Your task to perform on an android device: Search for Mexican restaurants on Maps Image 0: 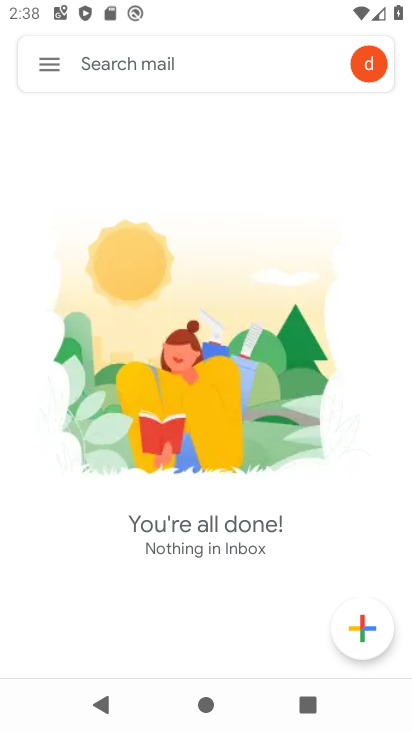
Step 0: press back button
Your task to perform on an android device: Search for Mexican restaurants on Maps Image 1: 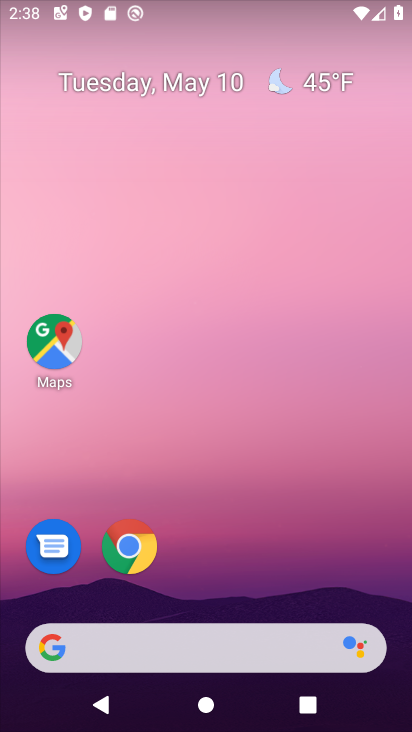
Step 1: click (51, 333)
Your task to perform on an android device: Search for Mexican restaurants on Maps Image 2: 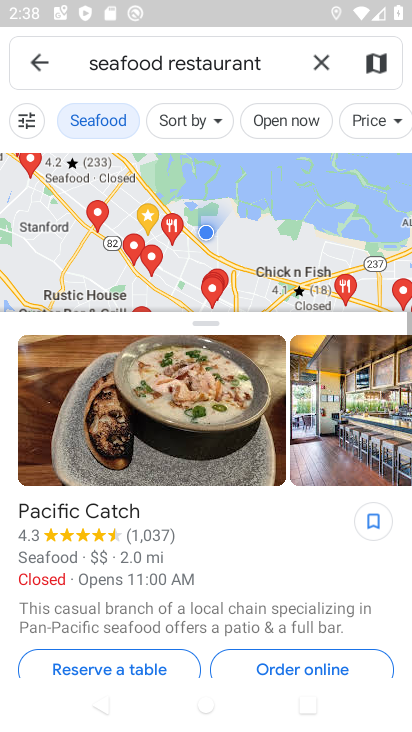
Step 2: click (329, 61)
Your task to perform on an android device: Search for Mexican restaurants on Maps Image 3: 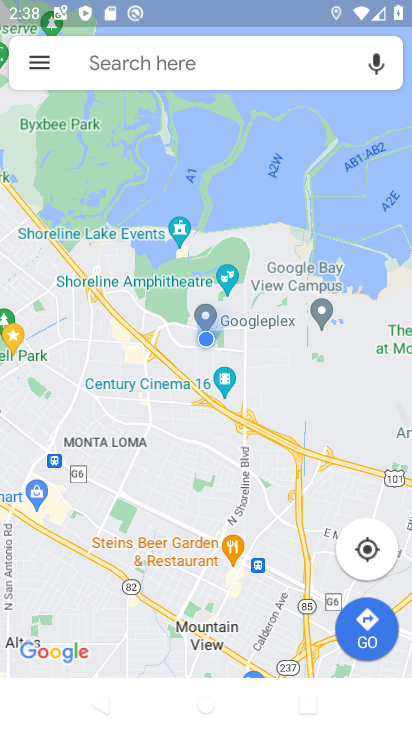
Step 3: click (258, 57)
Your task to perform on an android device: Search for Mexican restaurants on Maps Image 4: 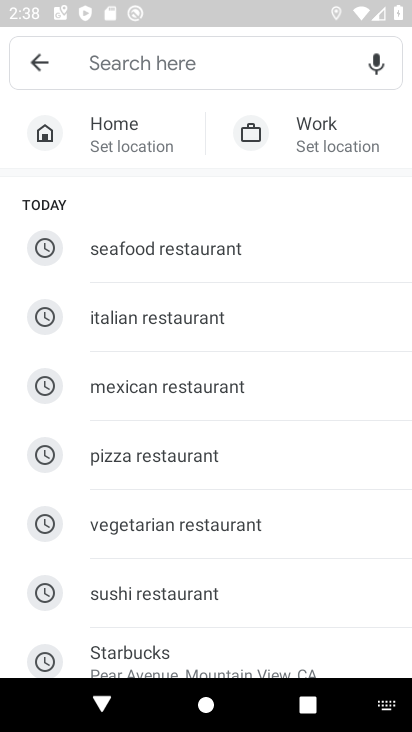
Step 4: click (274, 391)
Your task to perform on an android device: Search for Mexican restaurants on Maps Image 5: 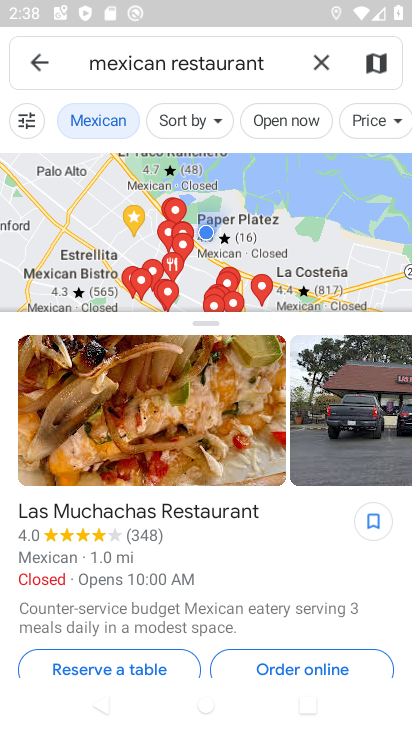
Step 5: task complete